Your task to perform on an android device: turn on translation in the chrome app Image 0: 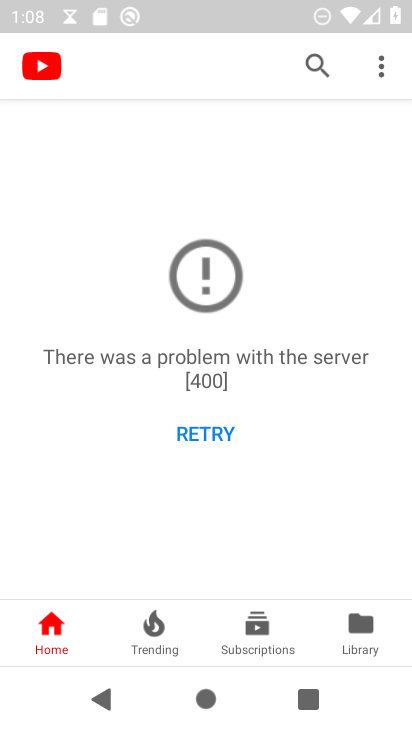
Step 0: press home button
Your task to perform on an android device: turn on translation in the chrome app Image 1: 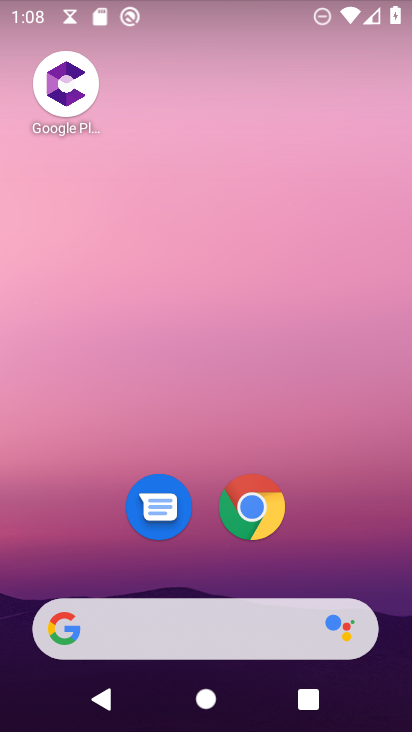
Step 1: click (257, 499)
Your task to perform on an android device: turn on translation in the chrome app Image 2: 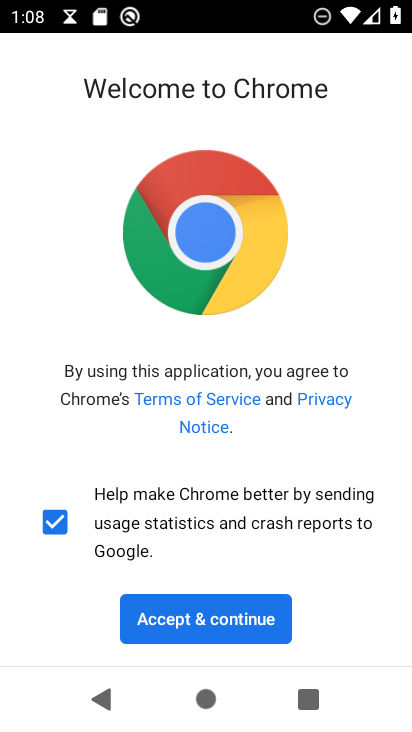
Step 2: click (229, 629)
Your task to perform on an android device: turn on translation in the chrome app Image 3: 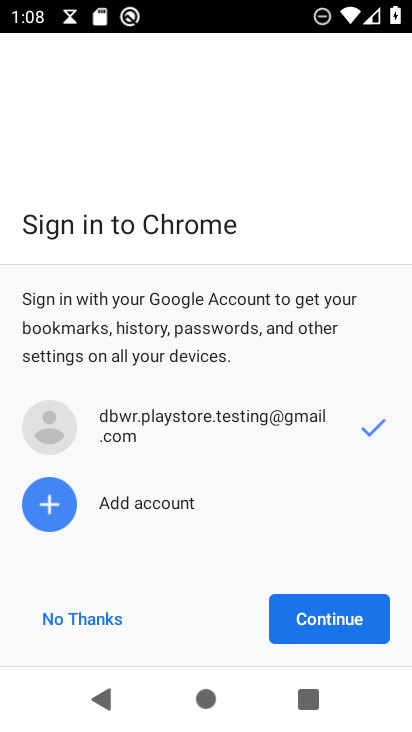
Step 3: click (328, 613)
Your task to perform on an android device: turn on translation in the chrome app Image 4: 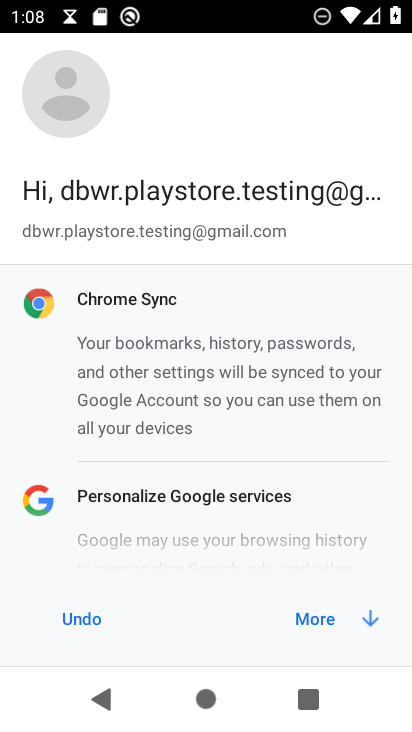
Step 4: click (313, 642)
Your task to perform on an android device: turn on translation in the chrome app Image 5: 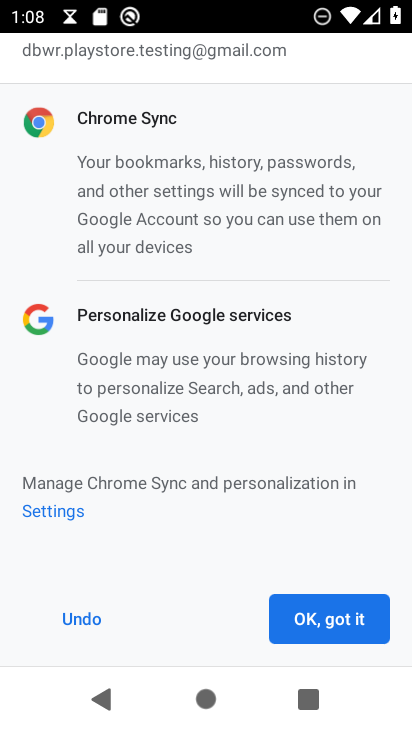
Step 5: click (308, 629)
Your task to perform on an android device: turn on translation in the chrome app Image 6: 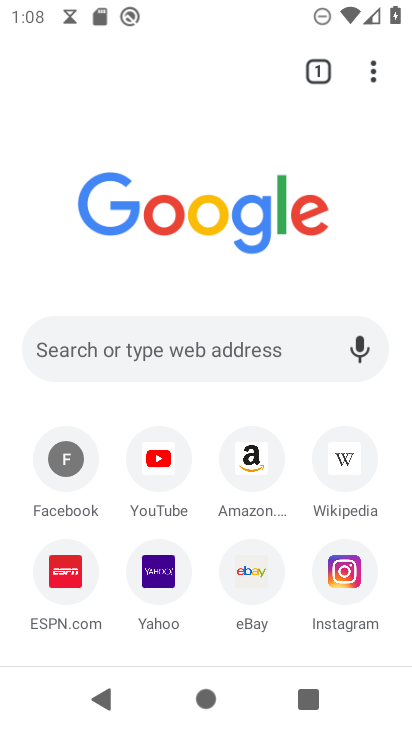
Step 6: click (369, 70)
Your task to perform on an android device: turn on translation in the chrome app Image 7: 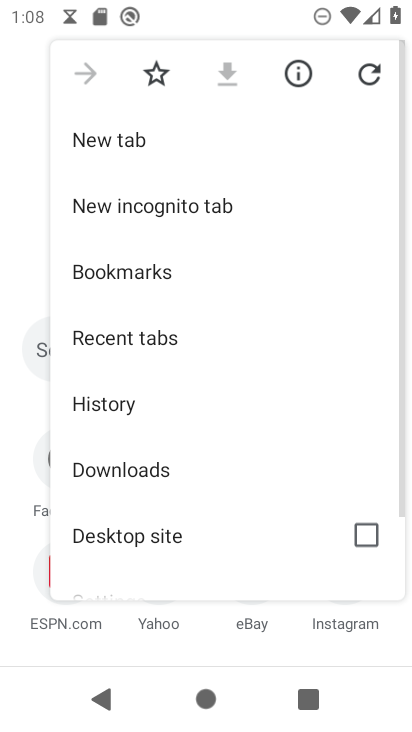
Step 7: drag from (136, 499) to (163, 204)
Your task to perform on an android device: turn on translation in the chrome app Image 8: 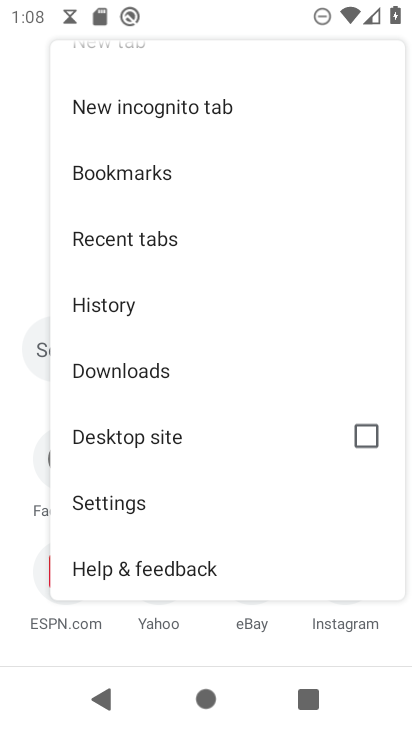
Step 8: click (116, 497)
Your task to perform on an android device: turn on translation in the chrome app Image 9: 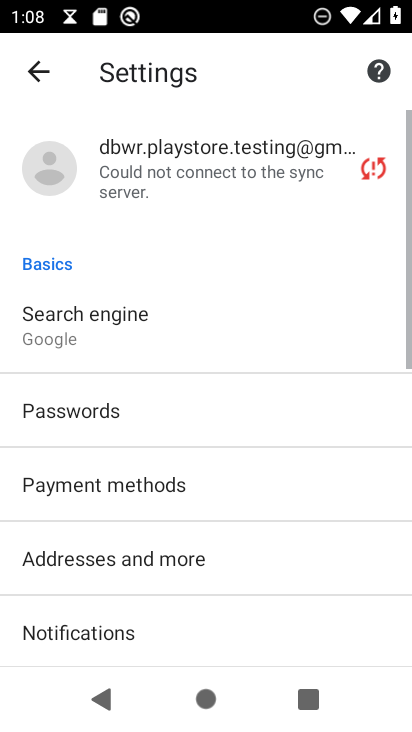
Step 9: drag from (181, 600) to (197, 268)
Your task to perform on an android device: turn on translation in the chrome app Image 10: 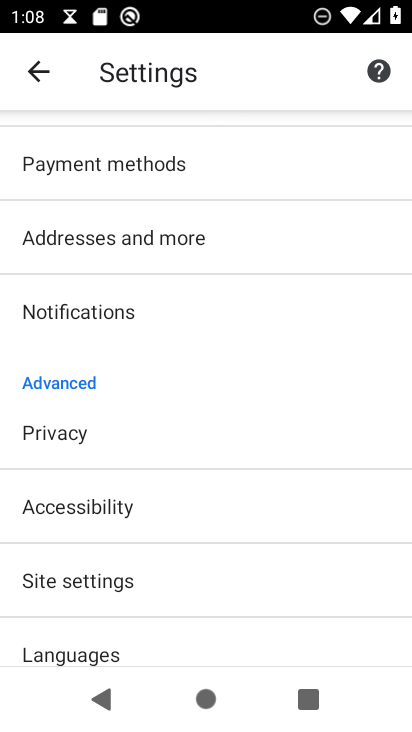
Step 10: click (117, 652)
Your task to perform on an android device: turn on translation in the chrome app Image 11: 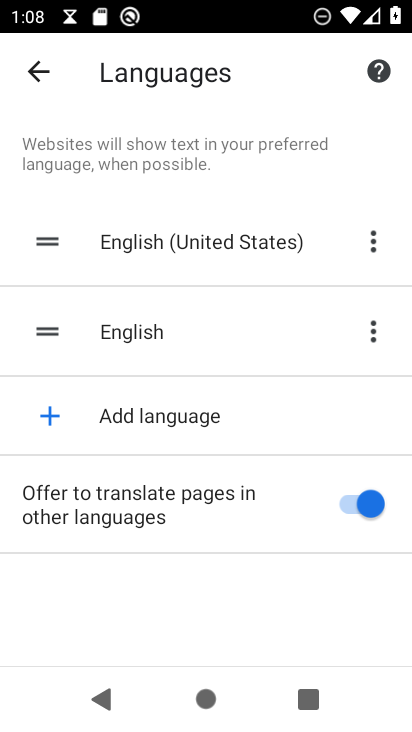
Step 11: task complete